Your task to perform on an android device: Open the phone app and click the voicemail tab. Image 0: 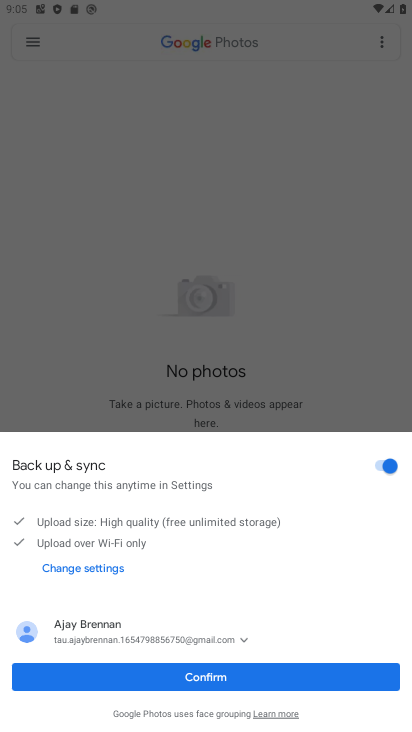
Step 0: press home button
Your task to perform on an android device: Open the phone app and click the voicemail tab. Image 1: 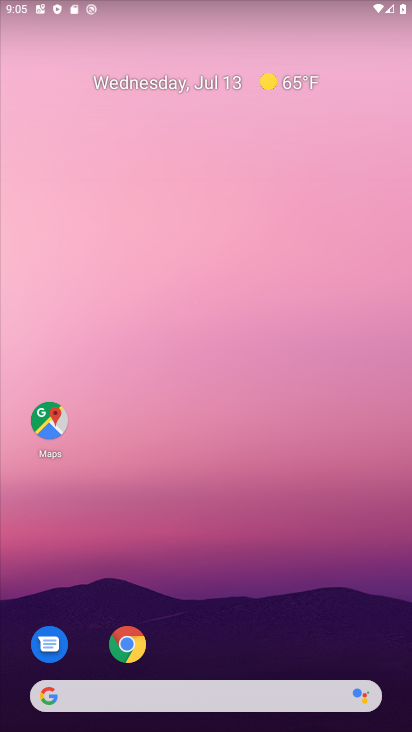
Step 1: drag from (256, 507) to (211, 64)
Your task to perform on an android device: Open the phone app and click the voicemail tab. Image 2: 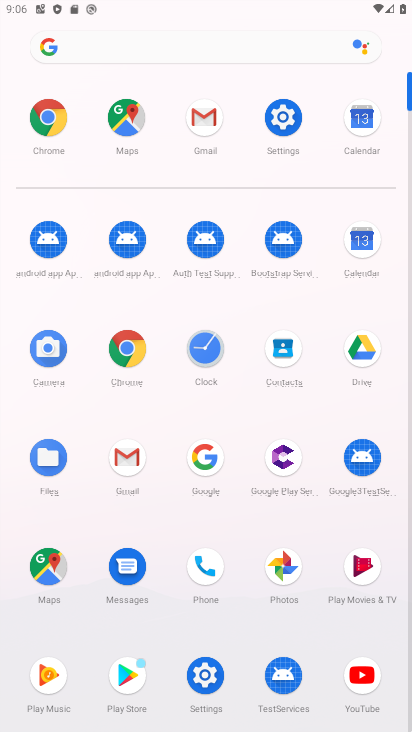
Step 2: click (206, 561)
Your task to perform on an android device: Open the phone app and click the voicemail tab. Image 3: 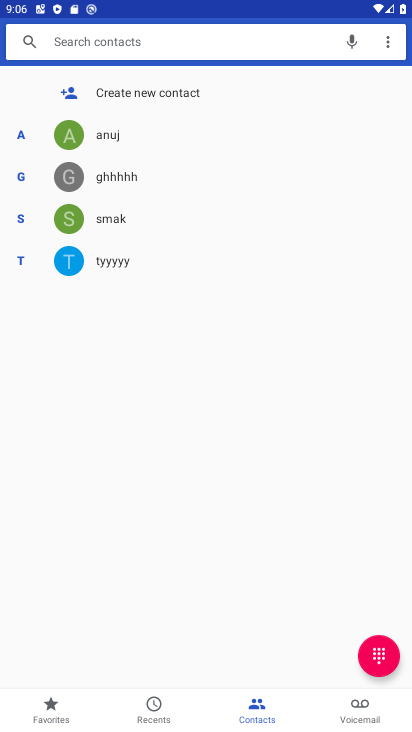
Step 3: click (370, 709)
Your task to perform on an android device: Open the phone app and click the voicemail tab. Image 4: 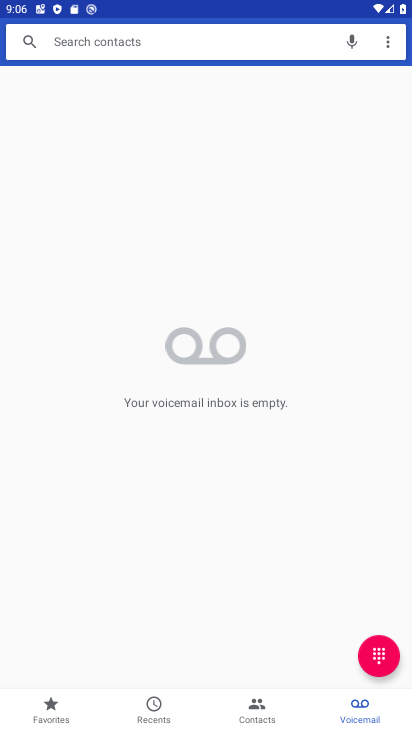
Step 4: task complete